Your task to perform on an android device: Find coffee shops on Maps Image 0: 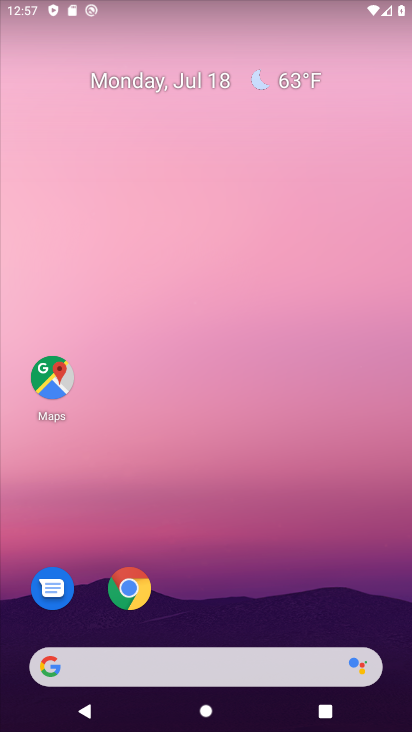
Step 0: click (47, 378)
Your task to perform on an android device: Find coffee shops on Maps Image 1: 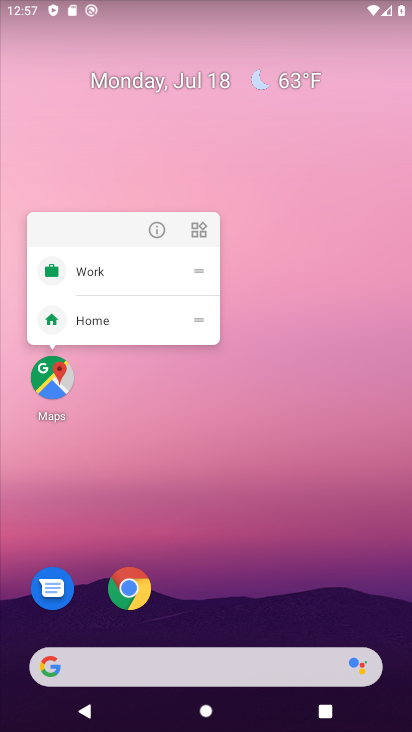
Step 1: click (85, 461)
Your task to perform on an android device: Find coffee shops on Maps Image 2: 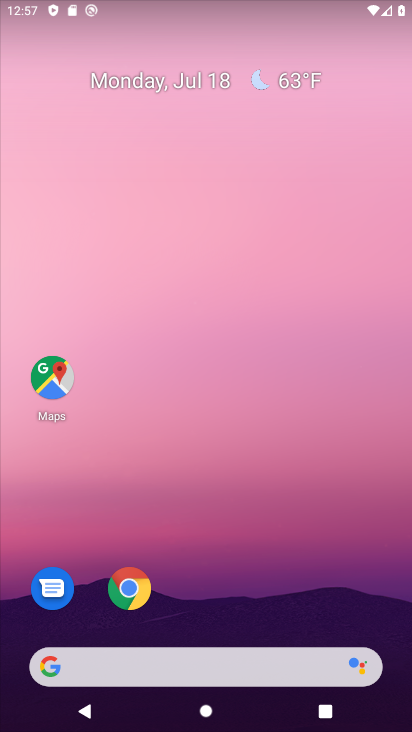
Step 2: click (53, 374)
Your task to perform on an android device: Find coffee shops on Maps Image 3: 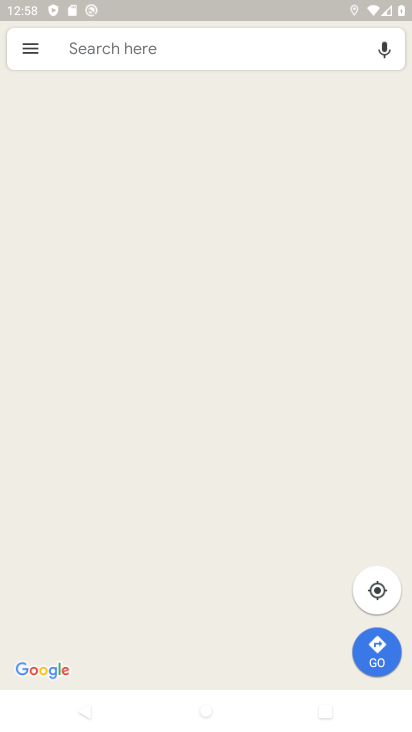
Step 3: click (179, 46)
Your task to perform on an android device: Find coffee shops on Maps Image 4: 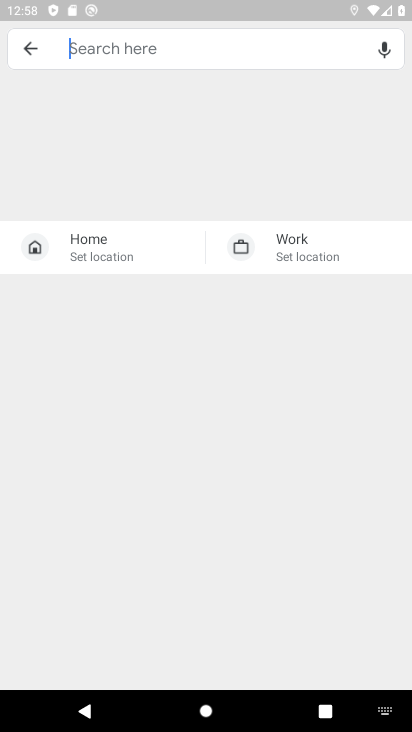
Step 4: type "coffee sh"
Your task to perform on an android device: Find coffee shops on Maps Image 5: 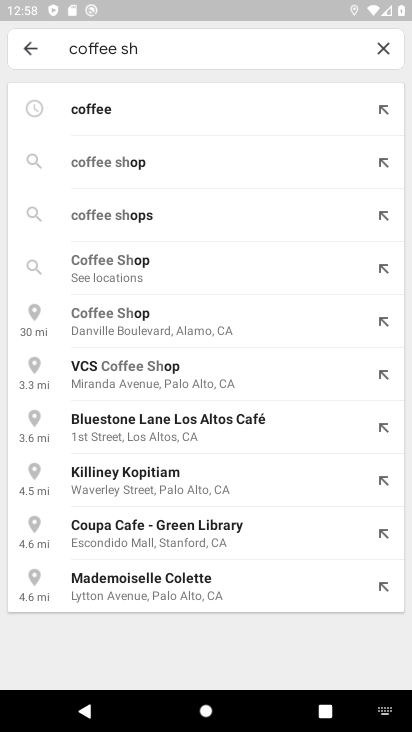
Step 5: click (128, 158)
Your task to perform on an android device: Find coffee shops on Maps Image 6: 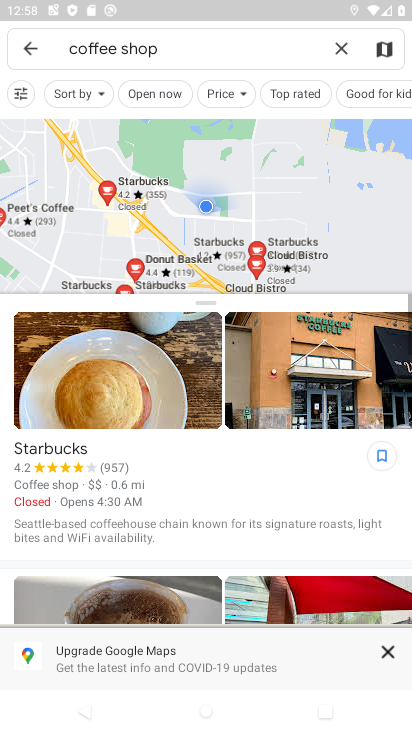
Step 6: task complete